Your task to perform on an android device: turn off priority inbox in the gmail app Image 0: 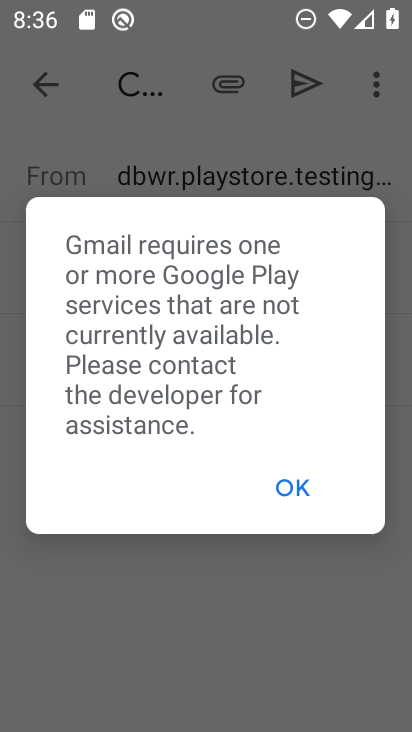
Step 0: press back button
Your task to perform on an android device: turn off priority inbox in the gmail app Image 1: 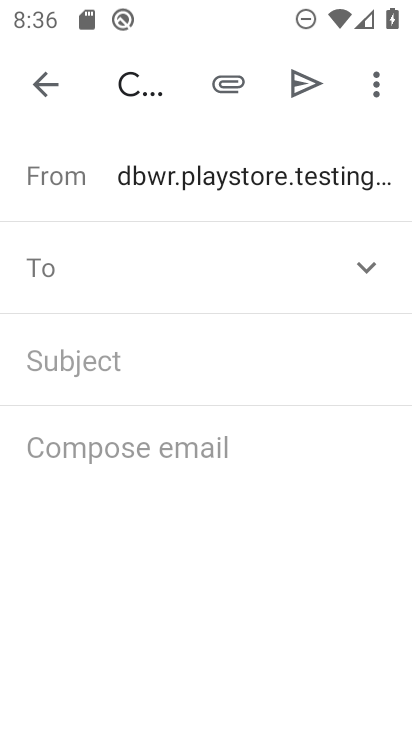
Step 1: press back button
Your task to perform on an android device: turn off priority inbox in the gmail app Image 2: 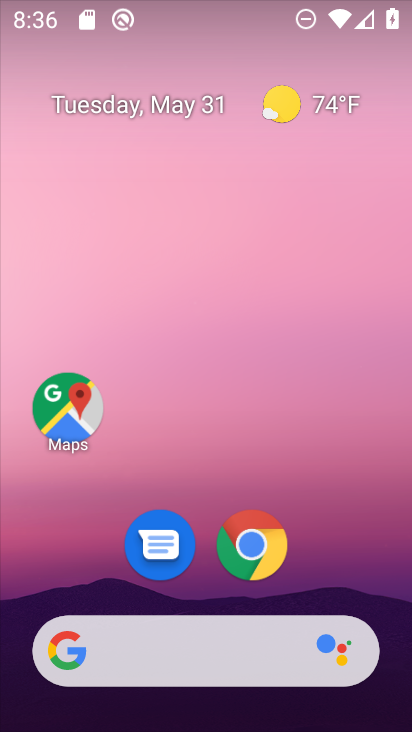
Step 2: drag from (332, 479) to (217, 32)
Your task to perform on an android device: turn off priority inbox in the gmail app Image 3: 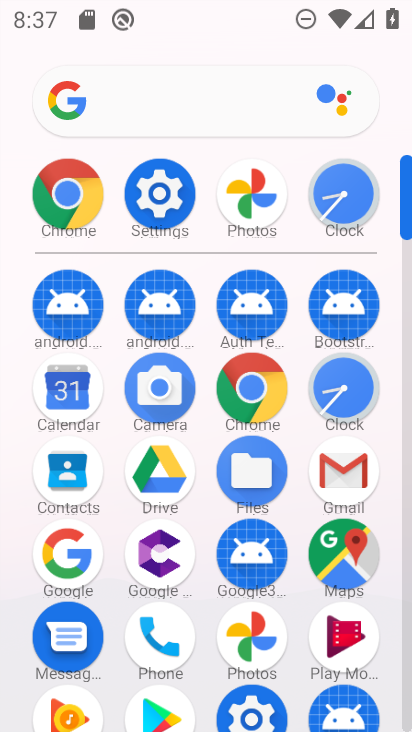
Step 3: drag from (11, 561) to (15, 238)
Your task to perform on an android device: turn off priority inbox in the gmail app Image 4: 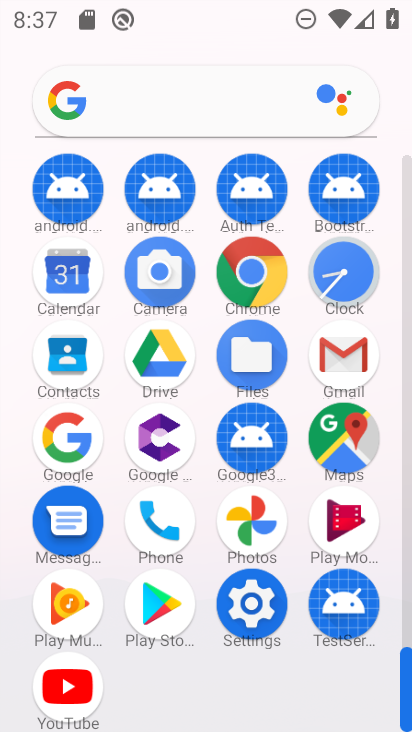
Step 4: drag from (21, 611) to (22, 270)
Your task to perform on an android device: turn off priority inbox in the gmail app Image 5: 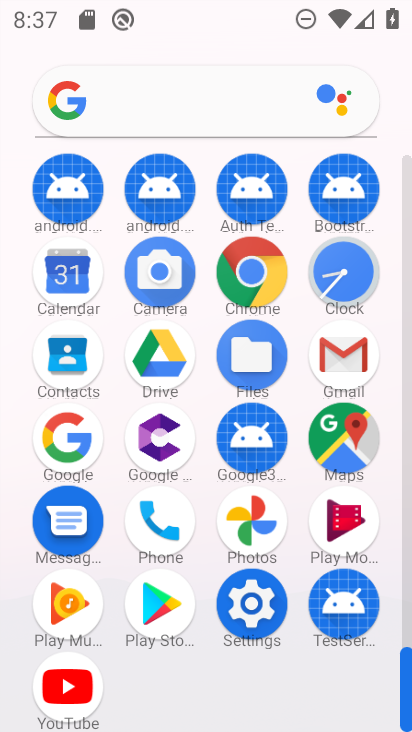
Step 5: click (338, 346)
Your task to perform on an android device: turn off priority inbox in the gmail app Image 6: 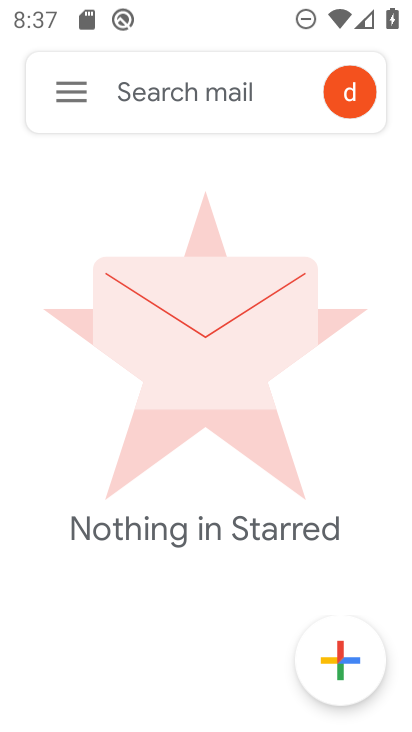
Step 6: click (57, 86)
Your task to perform on an android device: turn off priority inbox in the gmail app Image 7: 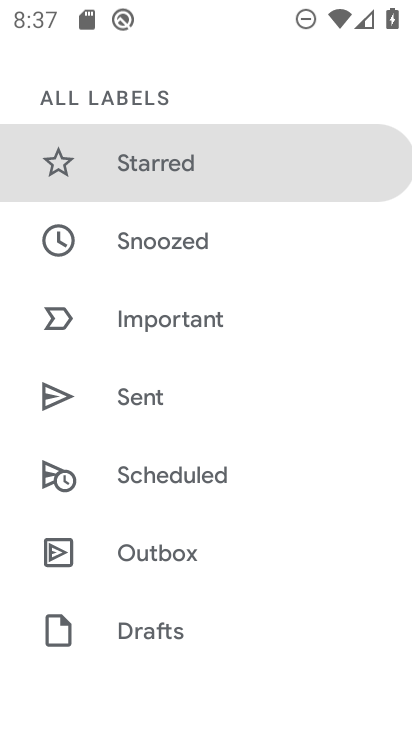
Step 7: drag from (209, 585) to (226, 138)
Your task to perform on an android device: turn off priority inbox in the gmail app Image 8: 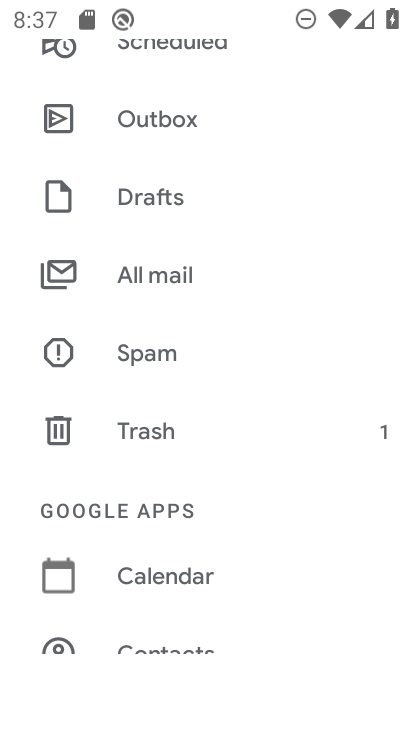
Step 8: drag from (193, 579) to (216, 140)
Your task to perform on an android device: turn off priority inbox in the gmail app Image 9: 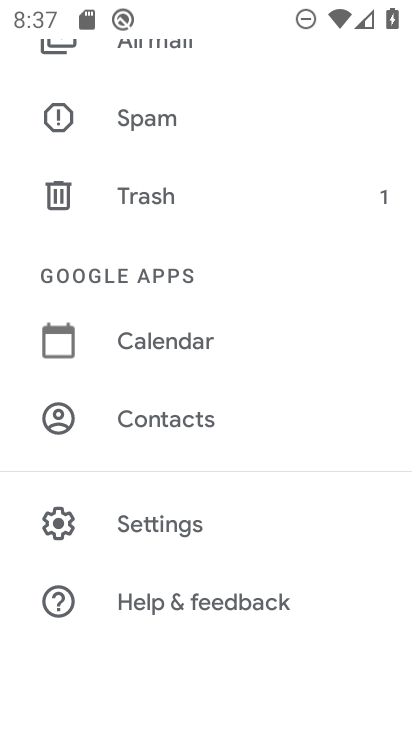
Step 9: click (177, 519)
Your task to perform on an android device: turn off priority inbox in the gmail app Image 10: 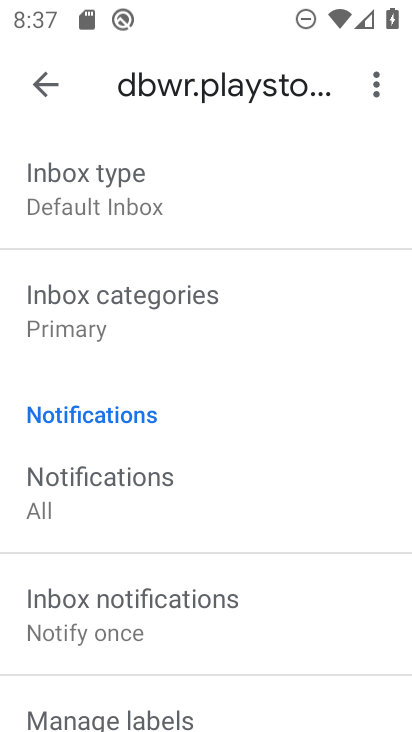
Step 10: drag from (286, 591) to (286, 165)
Your task to perform on an android device: turn off priority inbox in the gmail app Image 11: 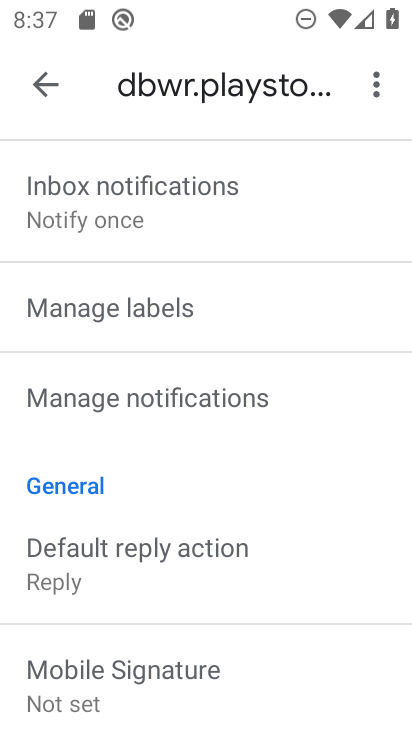
Step 11: drag from (259, 624) to (259, 195)
Your task to perform on an android device: turn off priority inbox in the gmail app Image 12: 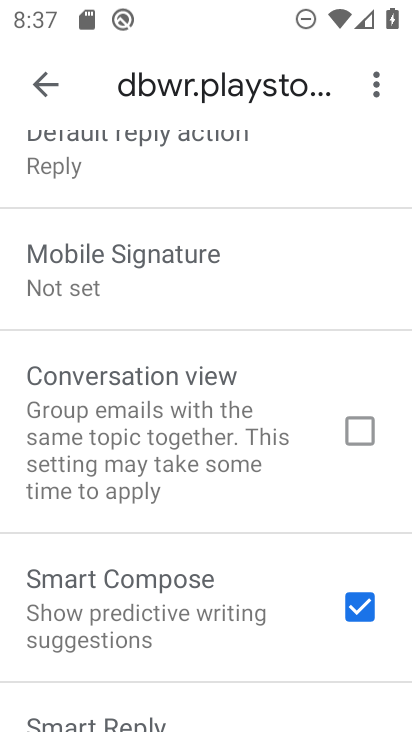
Step 12: drag from (259, 198) to (263, 638)
Your task to perform on an android device: turn off priority inbox in the gmail app Image 13: 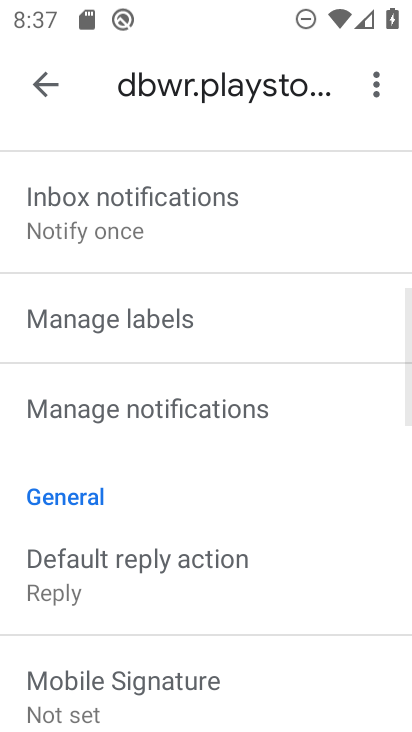
Step 13: drag from (281, 233) to (284, 615)
Your task to perform on an android device: turn off priority inbox in the gmail app Image 14: 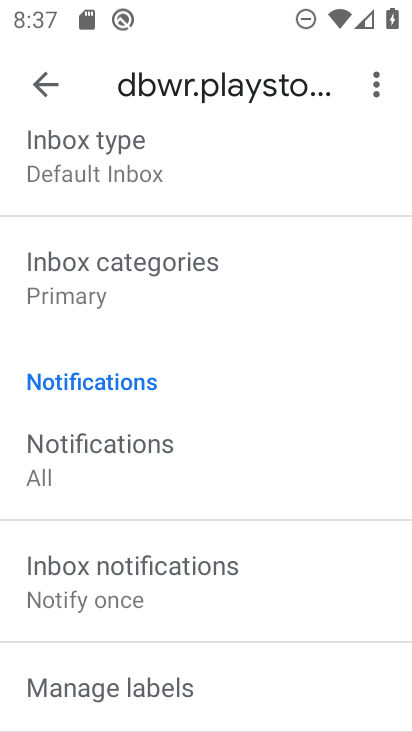
Step 14: drag from (262, 256) to (262, 575)
Your task to perform on an android device: turn off priority inbox in the gmail app Image 15: 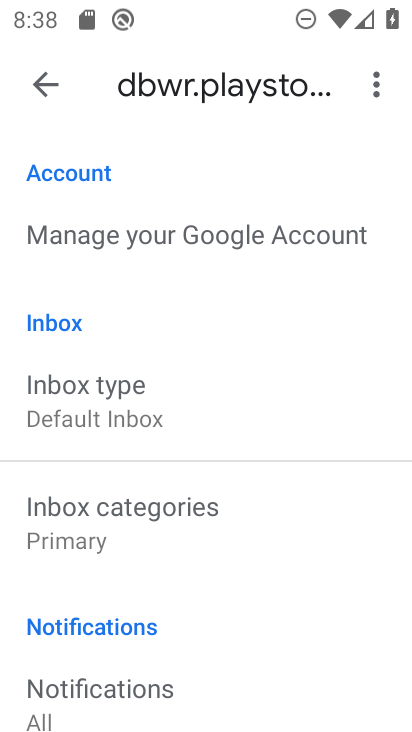
Step 15: click (142, 523)
Your task to perform on an android device: turn off priority inbox in the gmail app Image 16: 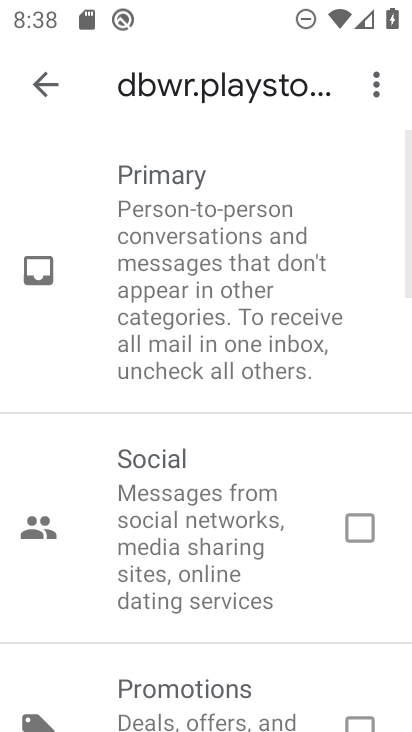
Step 16: click (51, 84)
Your task to perform on an android device: turn off priority inbox in the gmail app Image 17: 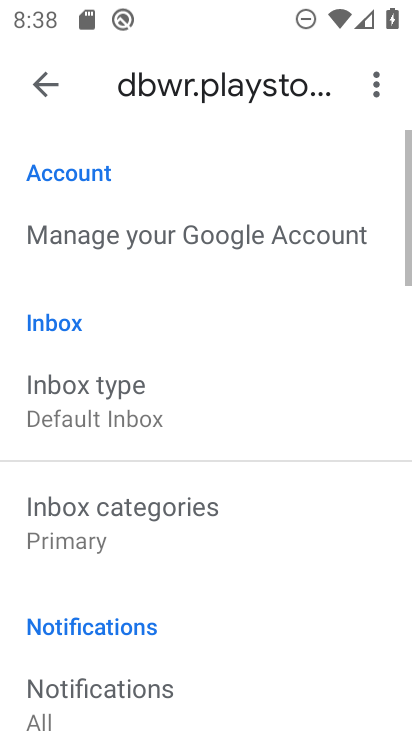
Step 17: click (119, 417)
Your task to perform on an android device: turn off priority inbox in the gmail app Image 18: 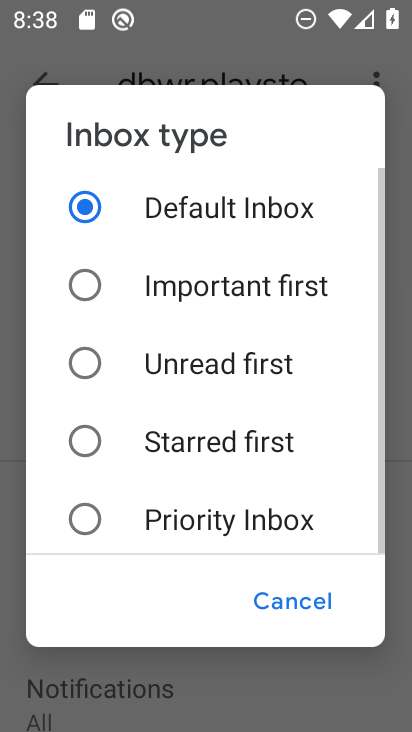
Step 18: drag from (196, 496) to (261, 242)
Your task to perform on an android device: turn off priority inbox in the gmail app Image 19: 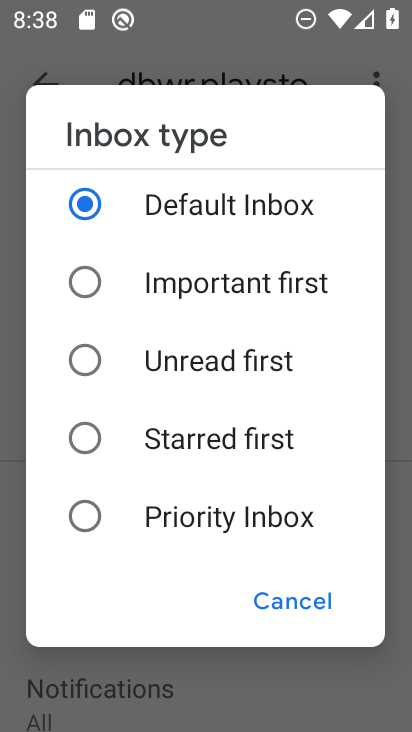
Step 19: click (165, 274)
Your task to perform on an android device: turn off priority inbox in the gmail app Image 20: 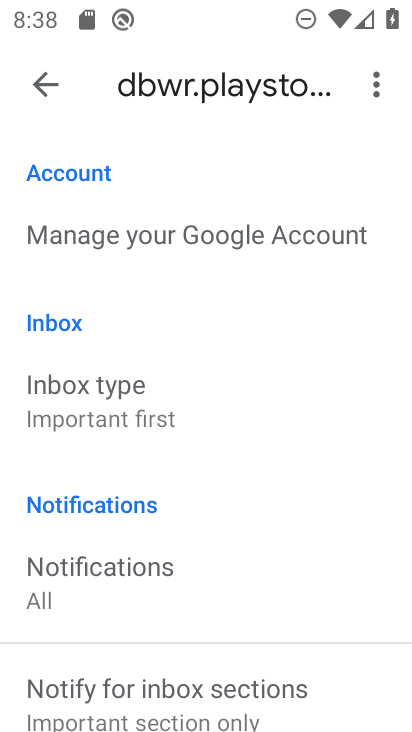
Step 20: task complete